Your task to perform on an android device: clear all cookies in the chrome app Image 0: 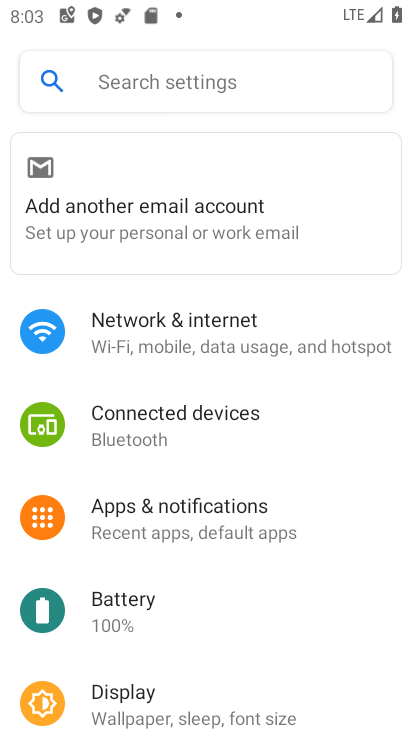
Step 0: press home button
Your task to perform on an android device: clear all cookies in the chrome app Image 1: 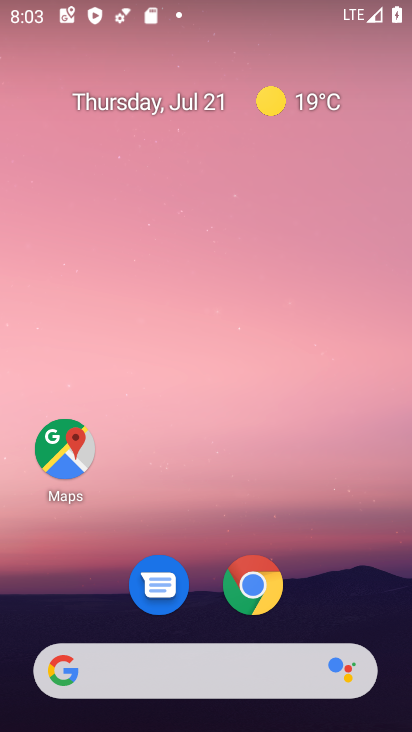
Step 1: click (255, 579)
Your task to perform on an android device: clear all cookies in the chrome app Image 2: 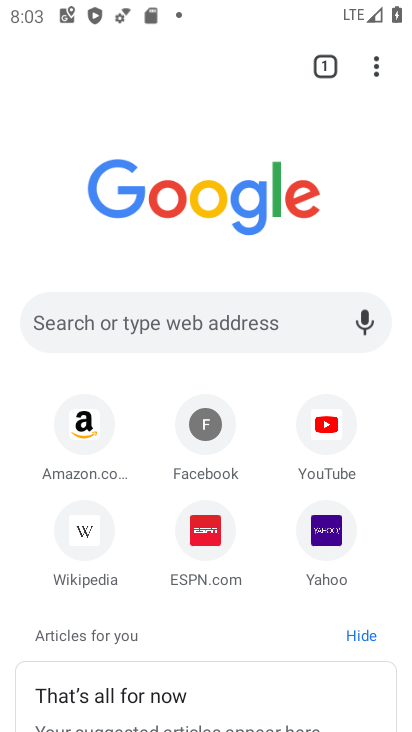
Step 2: click (373, 68)
Your task to perform on an android device: clear all cookies in the chrome app Image 3: 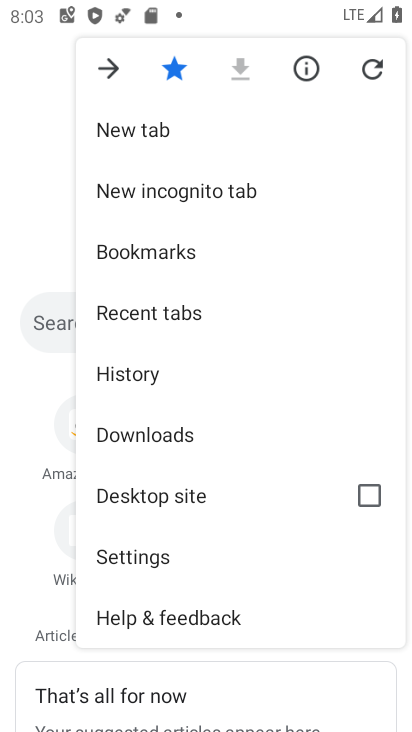
Step 3: click (157, 560)
Your task to perform on an android device: clear all cookies in the chrome app Image 4: 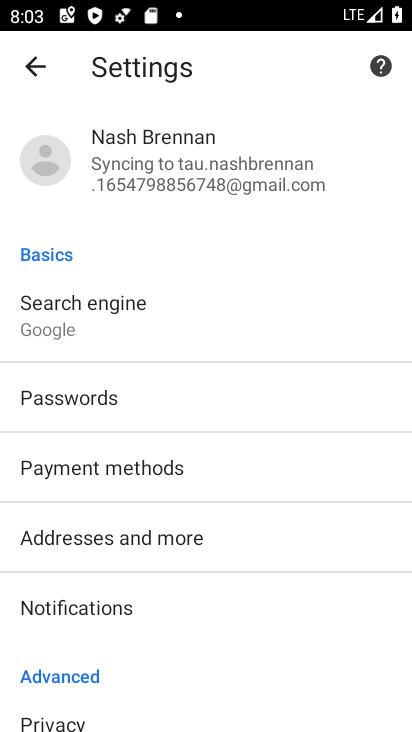
Step 4: drag from (215, 596) to (236, 396)
Your task to perform on an android device: clear all cookies in the chrome app Image 5: 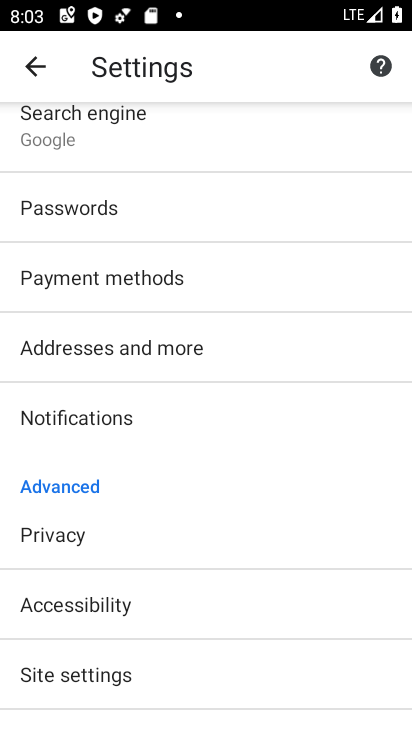
Step 5: click (61, 528)
Your task to perform on an android device: clear all cookies in the chrome app Image 6: 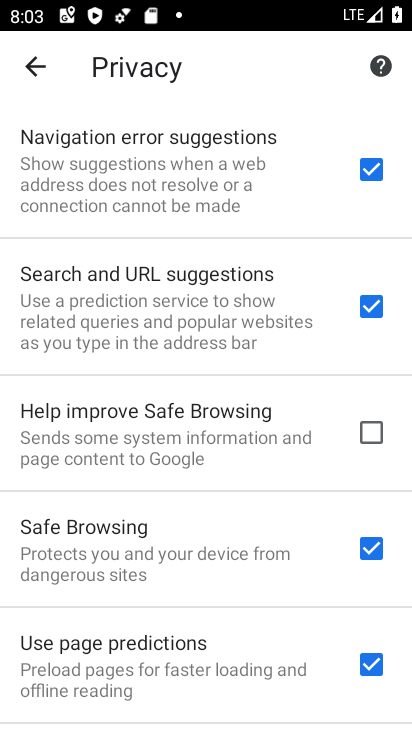
Step 6: drag from (247, 647) to (184, 35)
Your task to perform on an android device: clear all cookies in the chrome app Image 7: 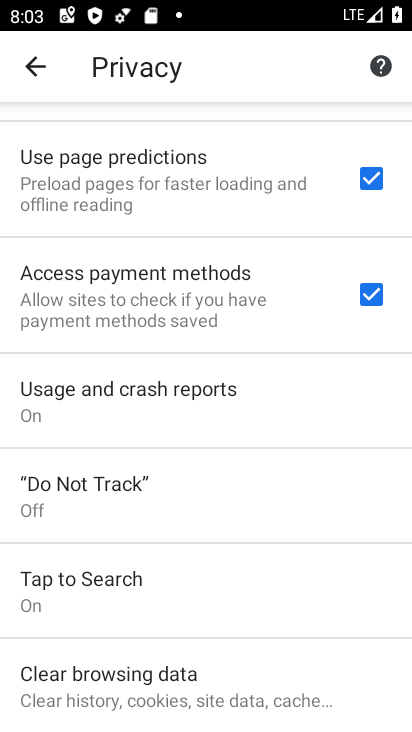
Step 7: click (156, 681)
Your task to perform on an android device: clear all cookies in the chrome app Image 8: 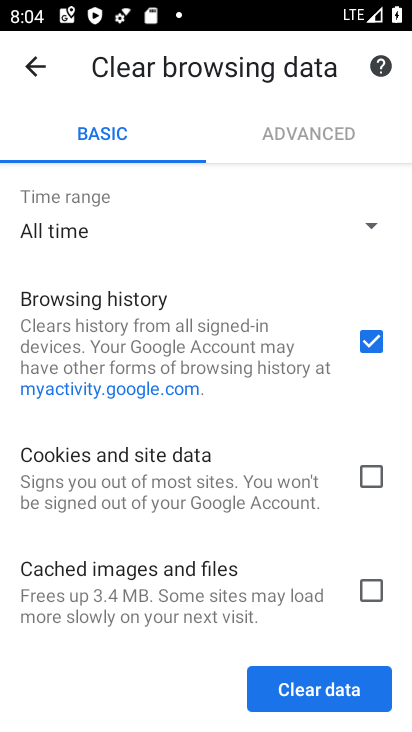
Step 8: click (381, 337)
Your task to perform on an android device: clear all cookies in the chrome app Image 9: 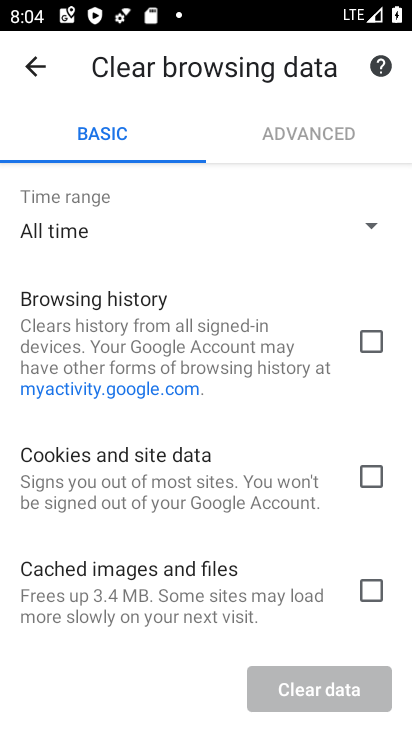
Step 9: click (369, 472)
Your task to perform on an android device: clear all cookies in the chrome app Image 10: 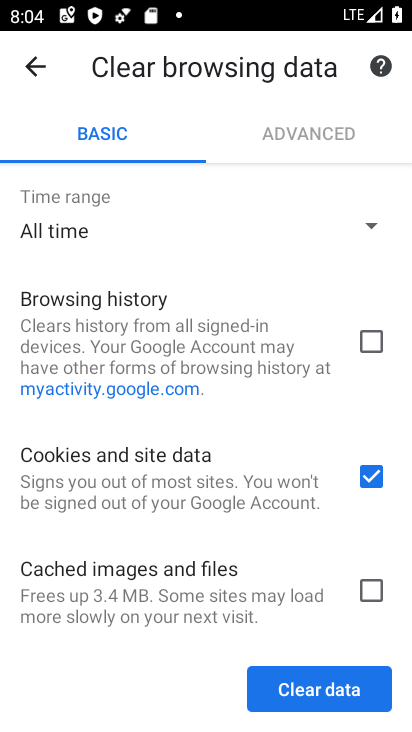
Step 10: click (351, 696)
Your task to perform on an android device: clear all cookies in the chrome app Image 11: 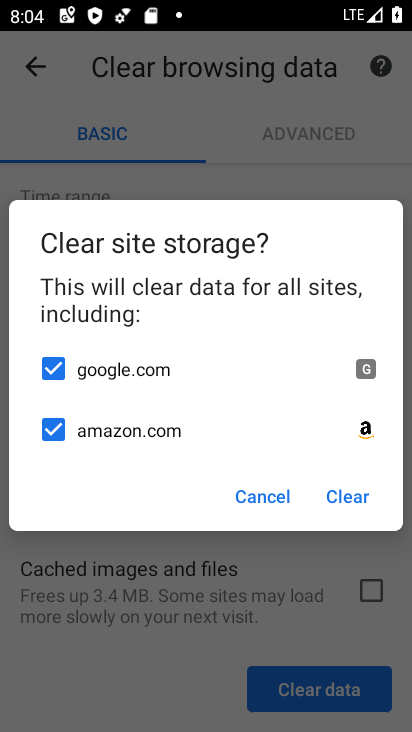
Step 11: click (352, 493)
Your task to perform on an android device: clear all cookies in the chrome app Image 12: 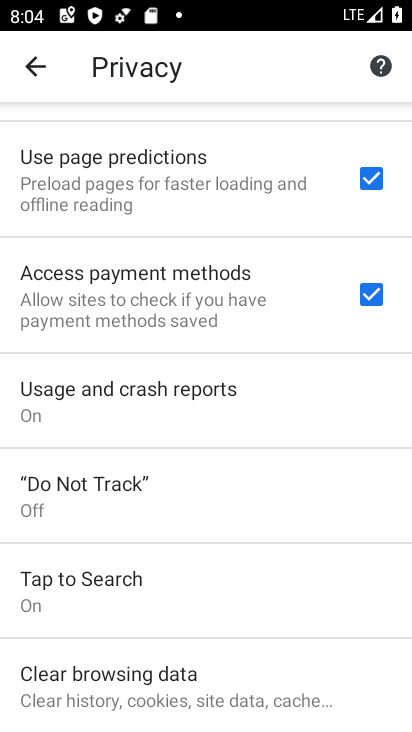
Step 12: task complete